Your task to perform on an android device: turn on notifications settings in the gmail app Image 0: 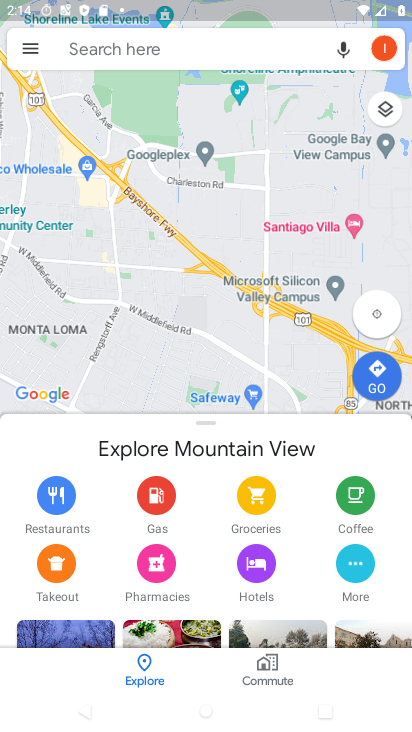
Step 0: press home button
Your task to perform on an android device: turn on notifications settings in the gmail app Image 1: 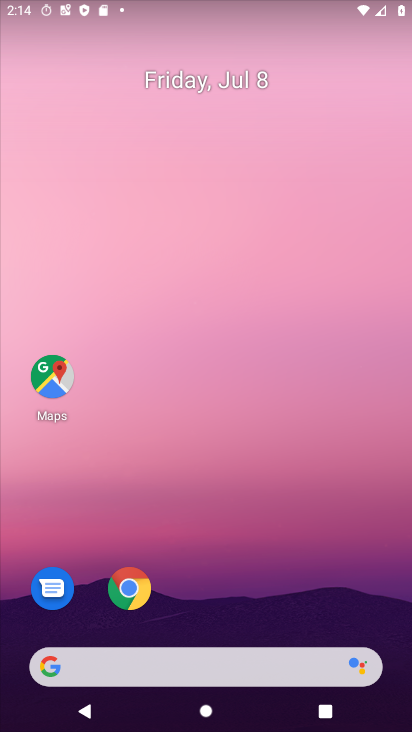
Step 1: drag from (239, 625) to (213, 186)
Your task to perform on an android device: turn on notifications settings in the gmail app Image 2: 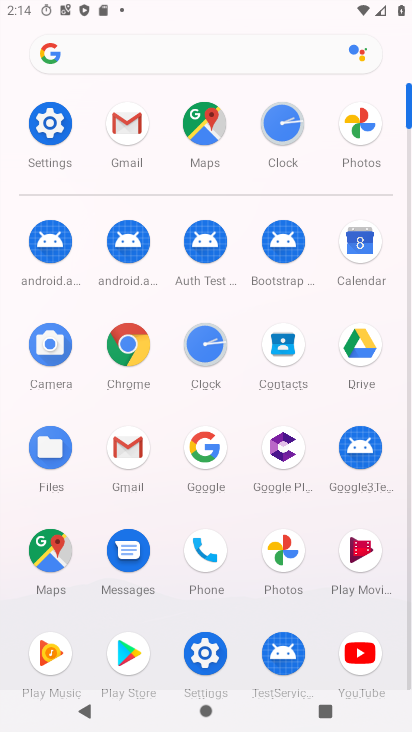
Step 2: click (126, 124)
Your task to perform on an android device: turn on notifications settings in the gmail app Image 3: 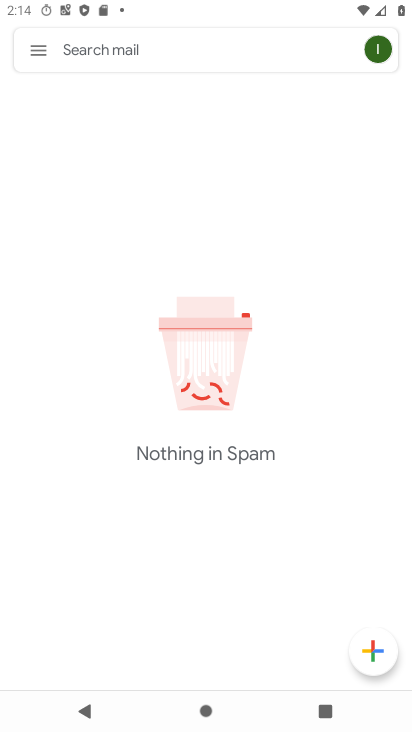
Step 3: click (36, 48)
Your task to perform on an android device: turn on notifications settings in the gmail app Image 4: 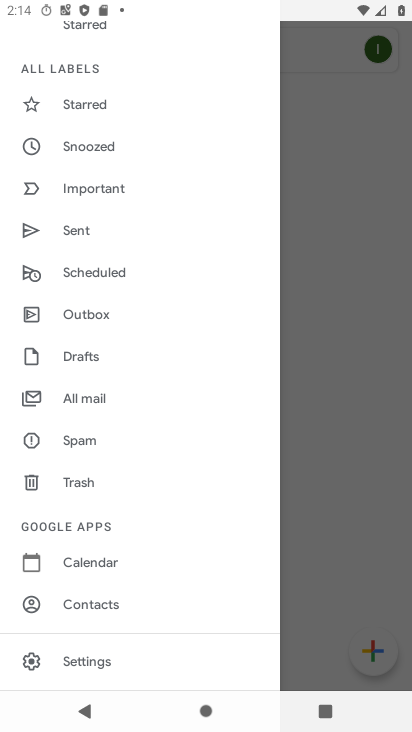
Step 4: click (91, 661)
Your task to perform on an android device: turn on notifications settings in the gmail app Image 5: 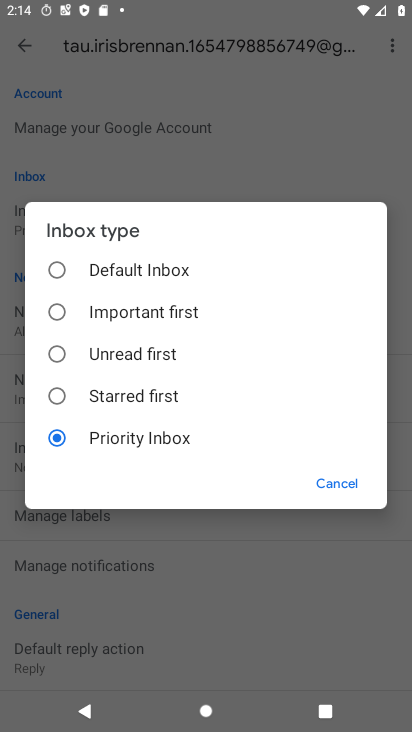
Step 5: click (355, 487)
Your task to perform on an android device: turn on notifications settings in the gmail app Image 6: 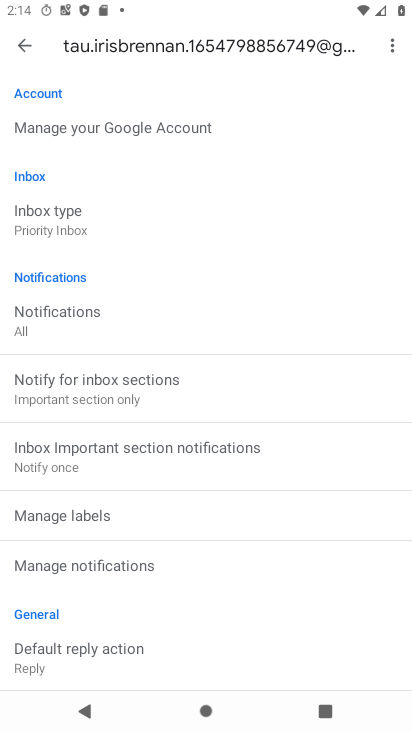
Step 6: press back button
Your task to perform on an android device: turn on notifications settings in the gmail app Image 7: 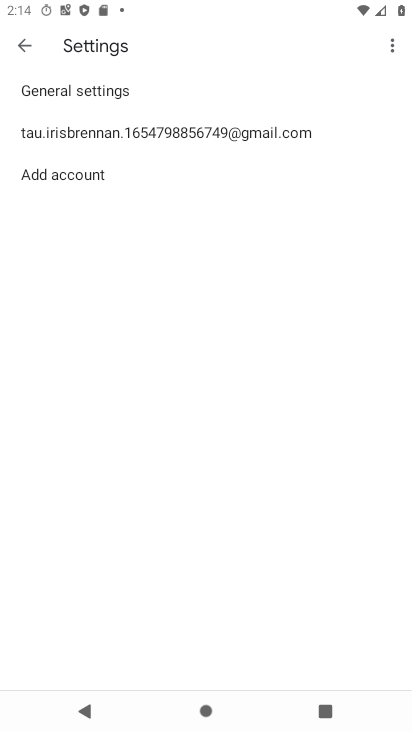
Step 7: click (79, 92)
Your task to perform on an android device: turn on notifications settings in the gmail app Image 8: 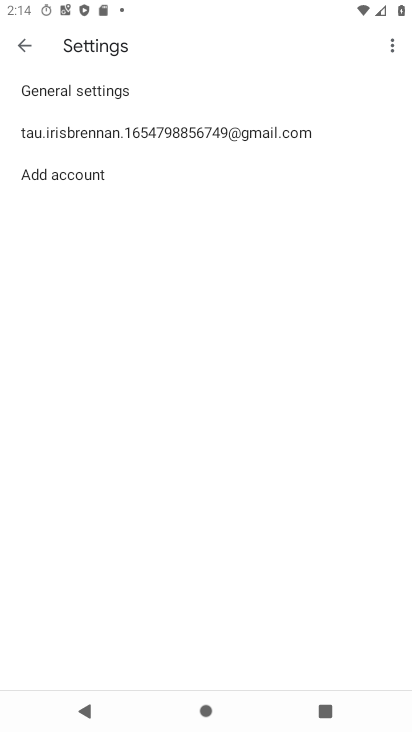
Step 8: click (75, 90)
Your task to perform on an android device: turn on notifications settings in the gmail app Image 9: 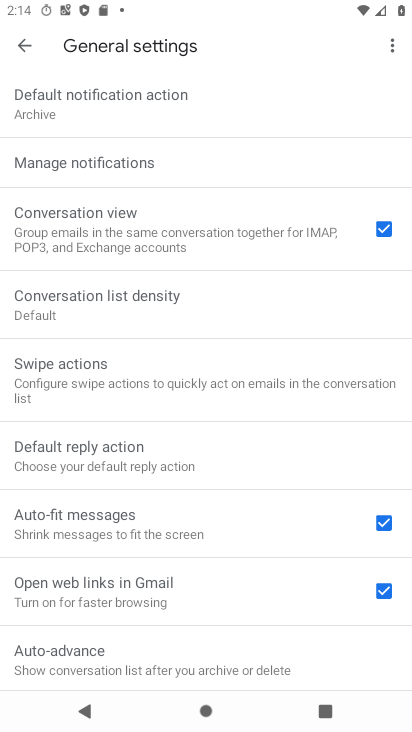
Step 9: click (83, 166)
Your task to perform on an android device: turn on notifications settings in the gmail app Image 10: 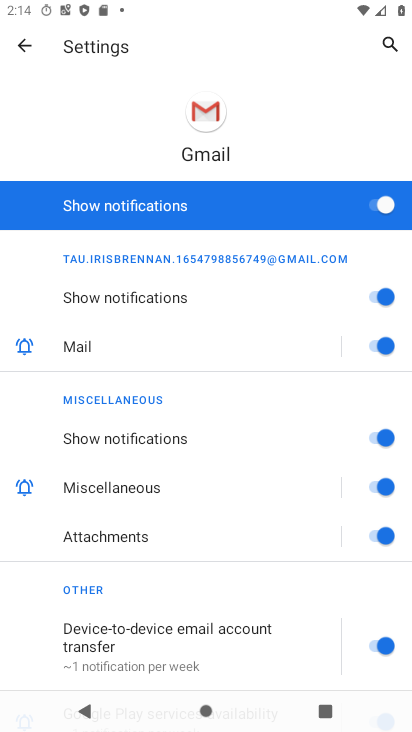
Step 10: task complete